Your task to perform on an android device: toggle notifications settings in the gmail app Image 0: 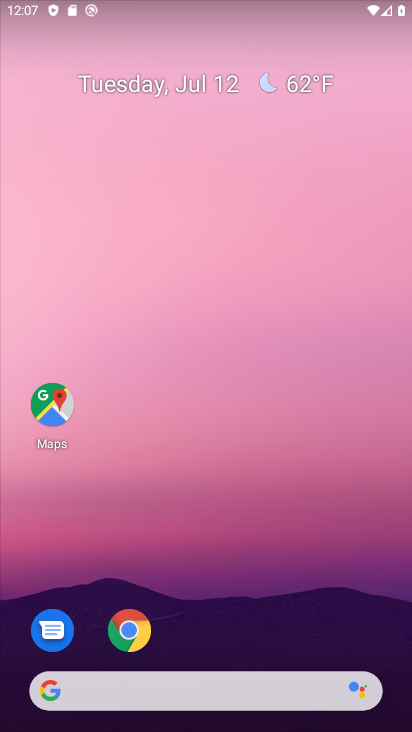
Step 0: drag from (190, 655) to (176, 135)
Your task to perform on an android device: toggle notifications settings in the gmail app Image 1: 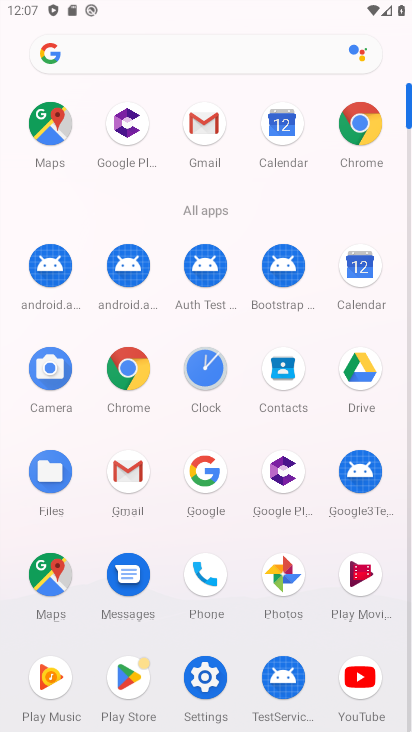
Step 1: click (201, 123)
Your task to perform on an android device: toggle notifications settings in the gmail app Image 2: 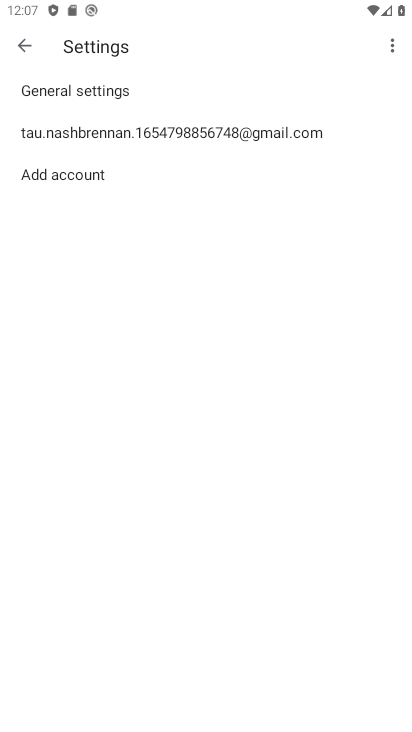
Step 2: click (112, 138)
Your task to perform on an android device: toggle notifications settings in the gmail app Image 3: 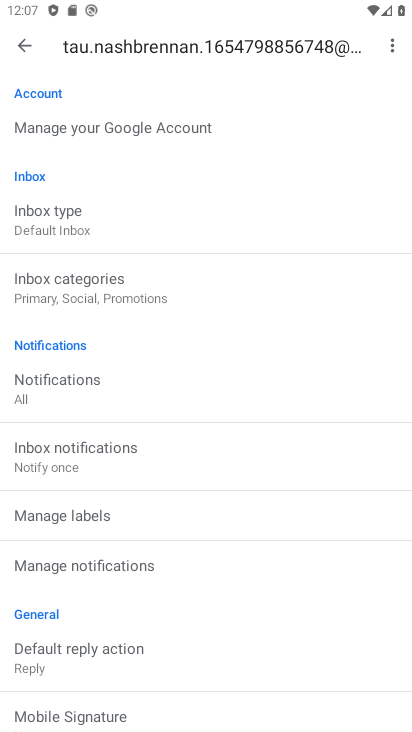
Step 3: click (55, 386)
Your task to perform on an android device: toggle notifications settings in the gmail app Image 4: 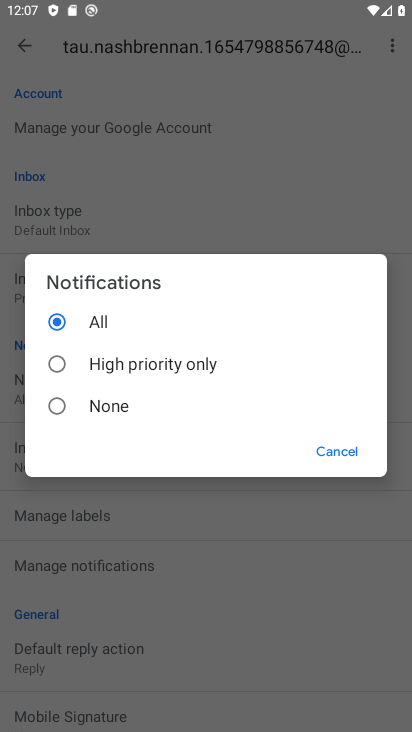
Step 4: click (56, 402)
Your task to perform on an android device: toggle notifications settings in the gmail app Image 5: 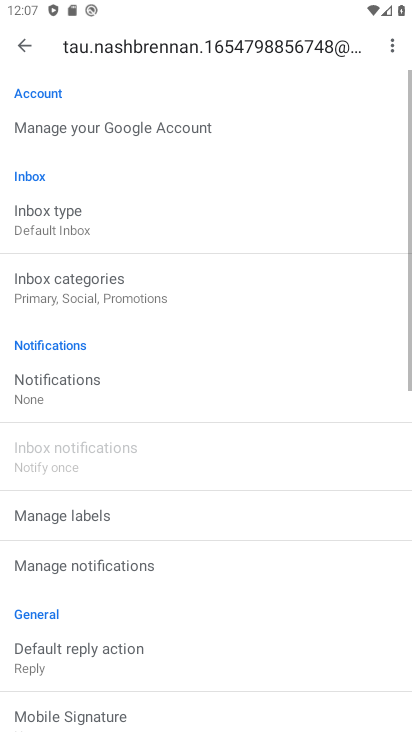
Step 5: task complete